Your task to perform on an android device: Open notification settings Image 0: 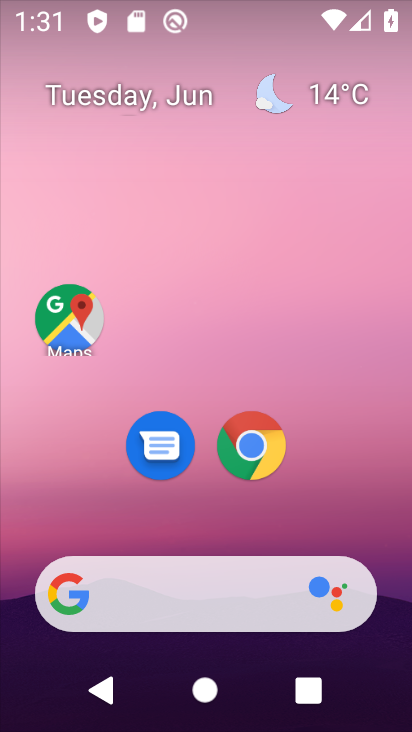
Step 0: drag from (362, 513) to (344, 97)
Your task to perform on an android device: Open notification settings Image 1: 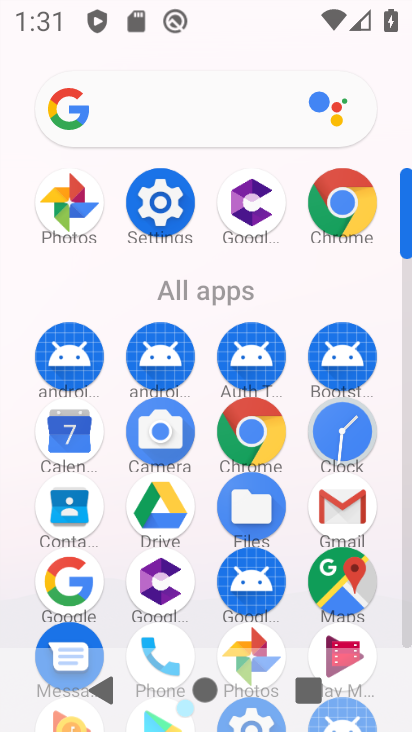
Step 1: click (133, 218)
Your task to perform on an android device: Open notification settings Image 2: 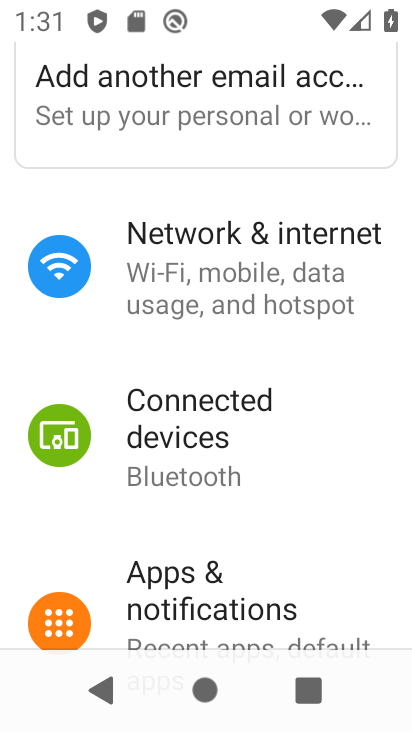
Step 2: drag from (303, 509) to (325, 214)
Your task to perform on an android device: Open notification settings Image 3: 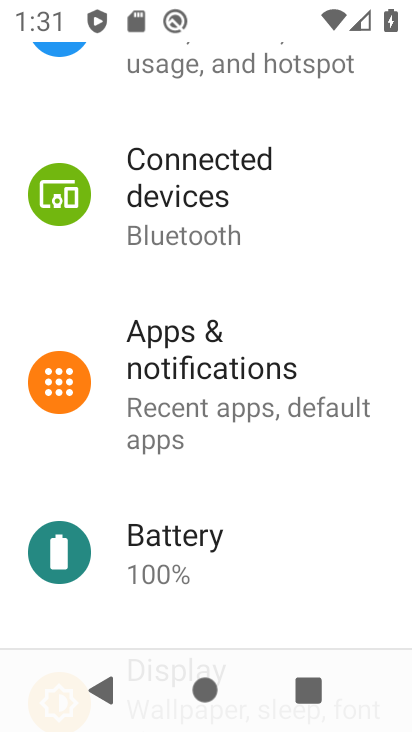
Step 3: click (289, 379)
Your task to perform on an android device: Open notification settings Image 4: 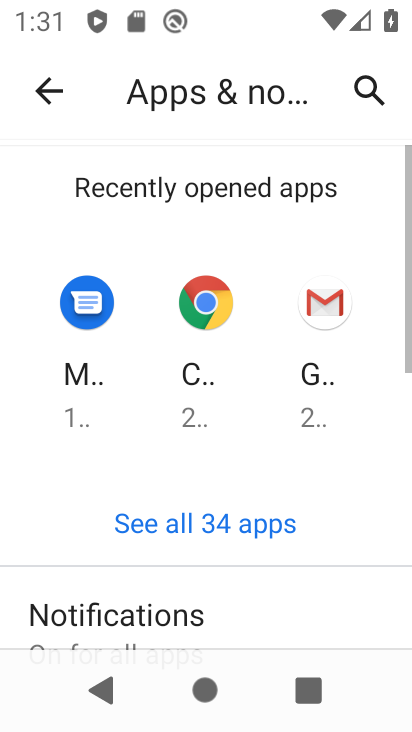
Step 4: drag from (271, 600) to (281, 303)
Your task to perform on an android device: Open notification settings Image 5: 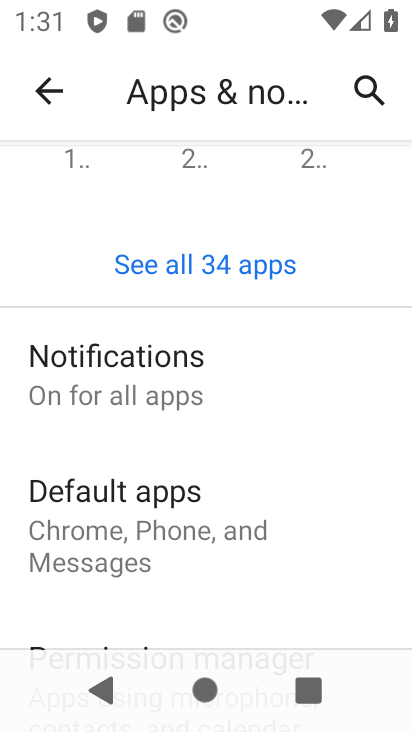
Step 5: click (182, 386)
Your task to perform on an android device: Open notification settings Image 6: 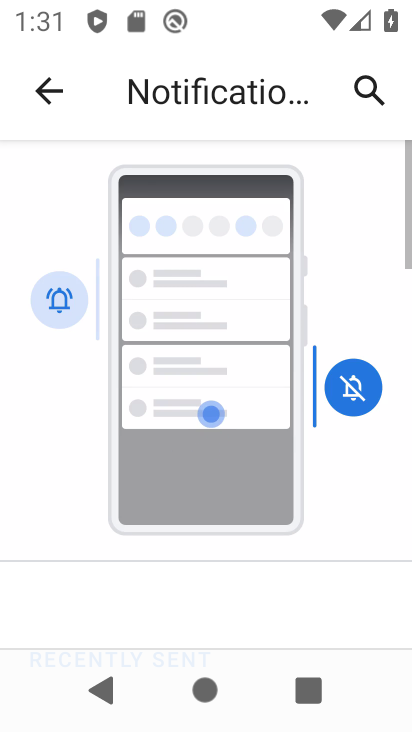
Step 6: task complete